Your task to perform on an android device: turn off translation in the chrome app Image 0: 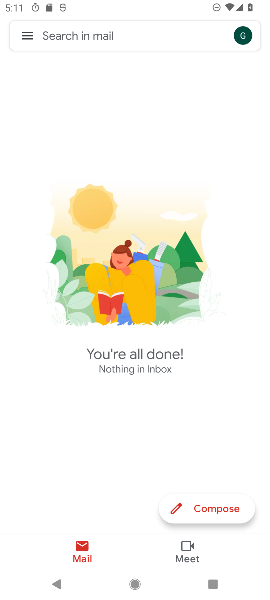
Step 0: press home button
Your task to perform on an android device: turn off translation in the chrome app Image 1: 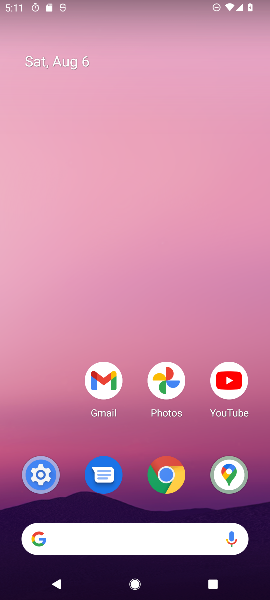
Step 1: click (163, 465)
Your task to perform on an android device: turn off translation in the chrome app Image 2: 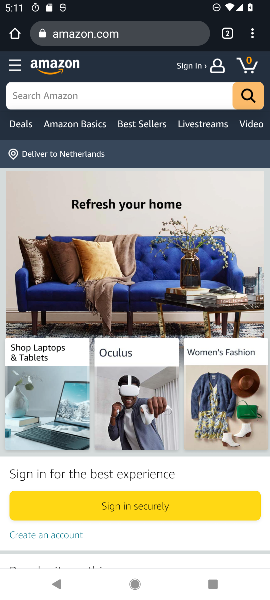
Step 2: click (254, 35)
Your task to perform on an android device: turn off translation in the chrome app Image 3: 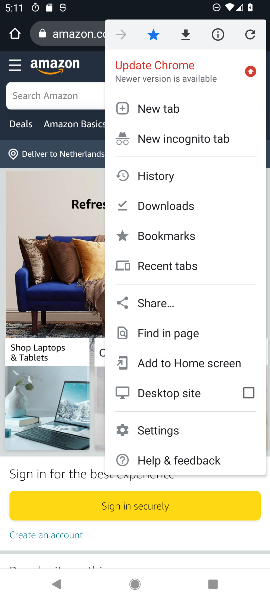
Step 3: click (160, 430)
Your task to perform on an android device: turn off translation in the chrome app Image 4: 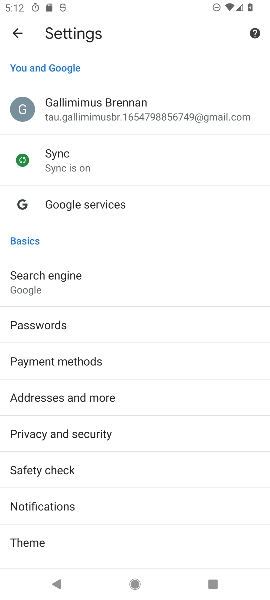
Step 4: drag from (194, 537) to (138, 158)
Your task to perform on an android device: turn off translation in the chrome app Image 5: 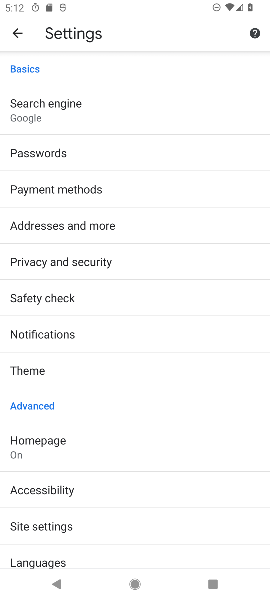
Step 5: drag from (147, 554) to (124, 258)
Your task to perform on an android device: turn off translation in the chrome app Image 6: 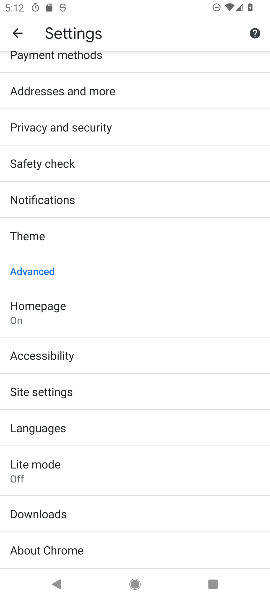
Step 6: drag from (169, 525) to (204, 278)
Your task to perform on an android device: turn off translation in the chrome app Image 7: 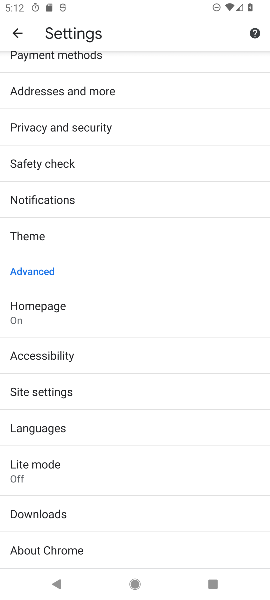
Step 7: click (46, 430)
Your task to perform on an android device: turn off translation in the chrome app Image 8: 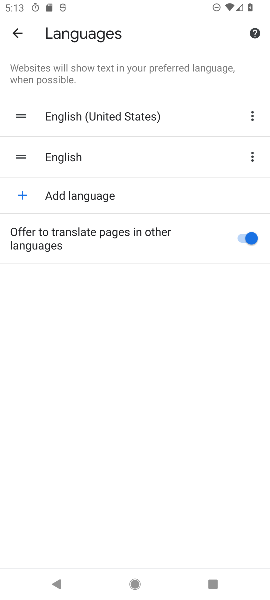
Step 8: task complete